Your task to perform on an android device: Go to notification settings Image 0: 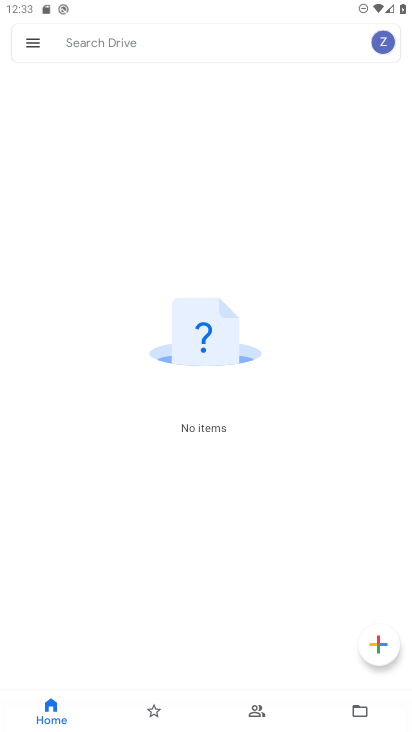
Step 0: press home button
Your task to perform on an android device: Go to notification settings Image 1: 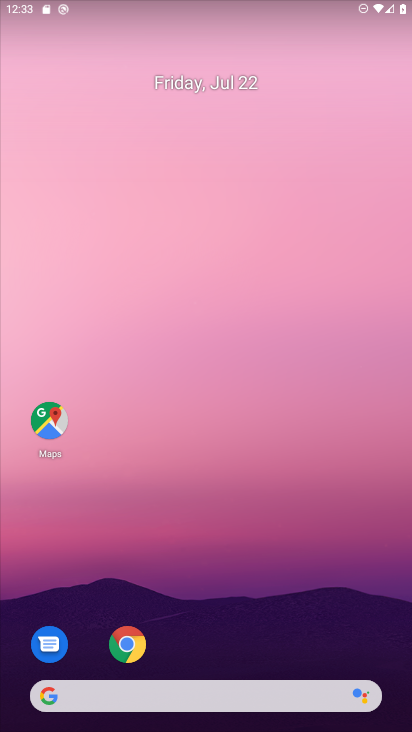
Step 1: drag from (175, 651) to (254, 108)
Your task to perform on an android device: Go to notification settings Image 2: 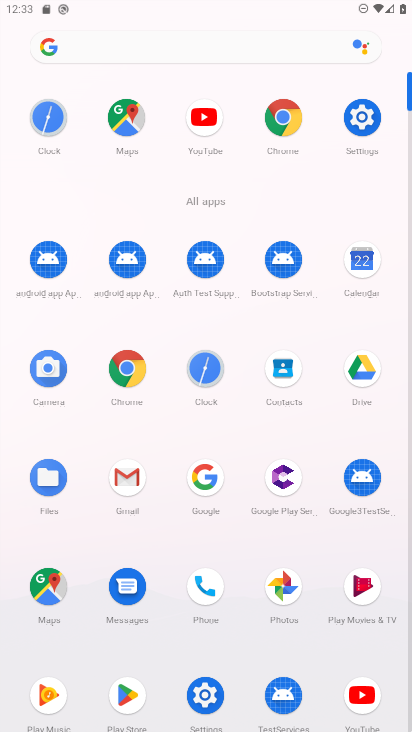
Step 2: click (365, 112)
Your task to perform on an android device: Go to notification settings Image 3: 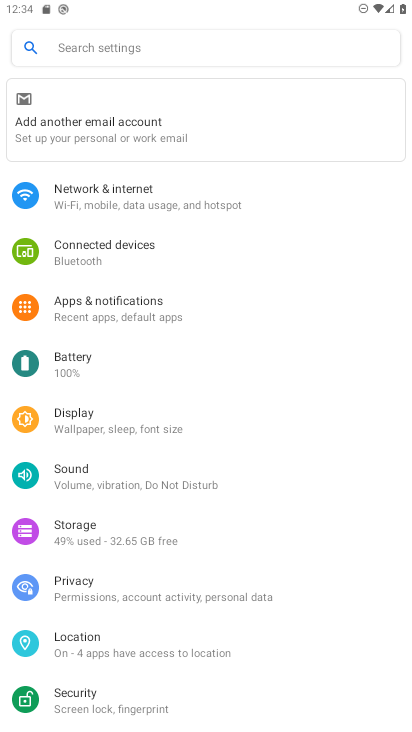
Step 3: click (75, 323)
Your task to perform on an android device: Go to notification settings Image 4: 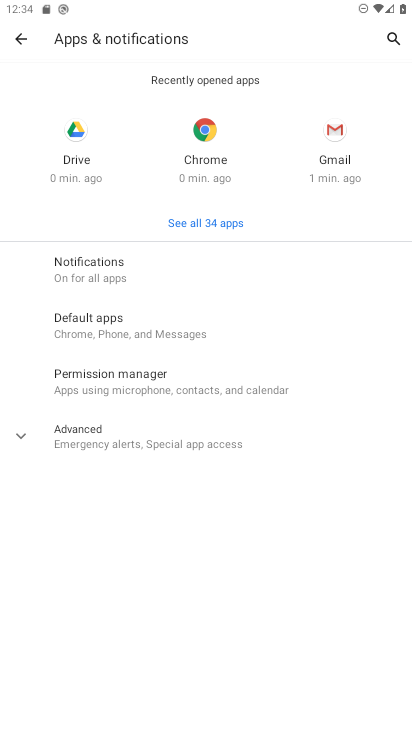
Step 4: task complete